Your task to perform on an android device: Go to Maps Image 0: 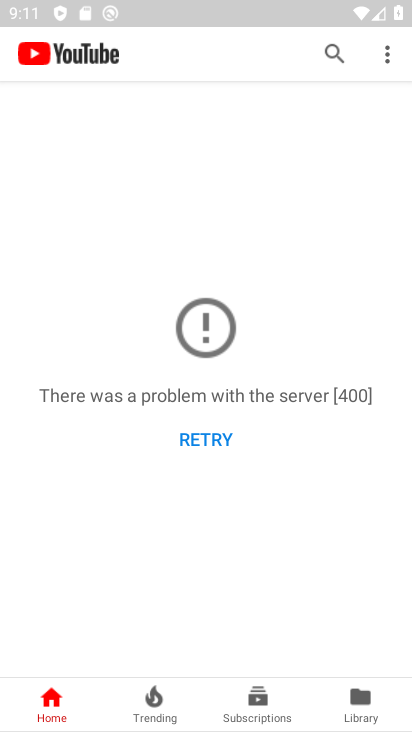
Step 0: task complete